Your task to perform on an android device: Find the nearest electronics store that's open today Image 0: 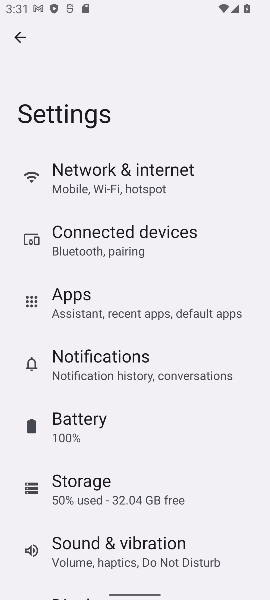
Step 0: press home button
Your task to perform on an android device: Find the nearest electronics store that's open today Image 1: 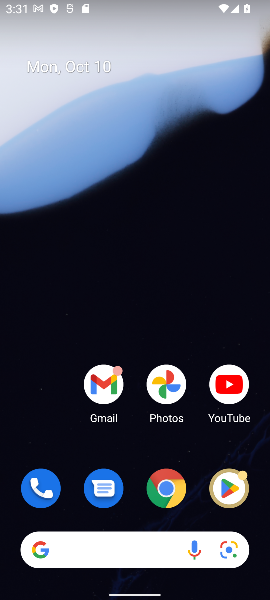
Step 1: click (95, 560)
Your task to perform on an android device: Find the nearest electronics store that's open today Image 2: 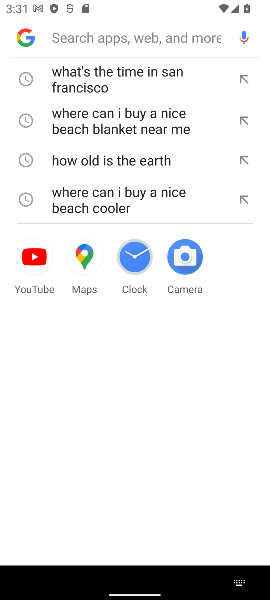
Step 2: click (112, 35)
Your task to perform on an android device: Find the nearest electronics store that's open today Image 3: 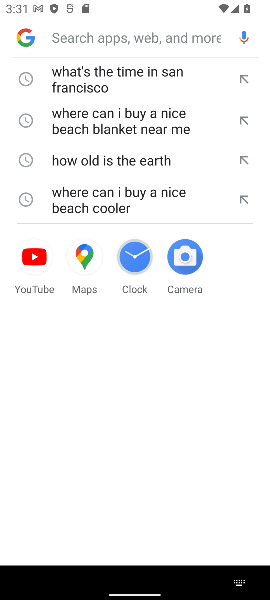
Step 3: type "nearest electronics store that's open today"
Your task to perform on an android device: Find the nearest electronics store that's open today Image 4: 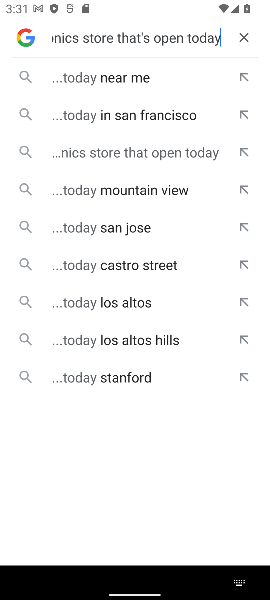
Step 4: click (129, 80)
Your task to perform on an android device: Find the nearest electronics store that's open today Image 5: 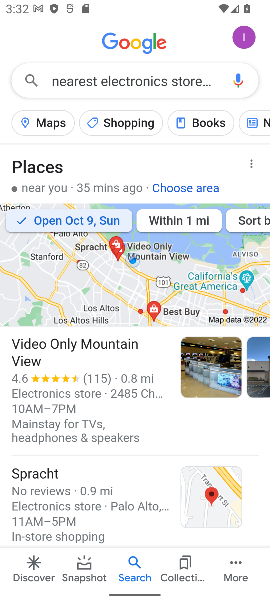
Step 5: task complete